Your task to perform on an android device: install app "Speedtest by Ookla" Image 0: 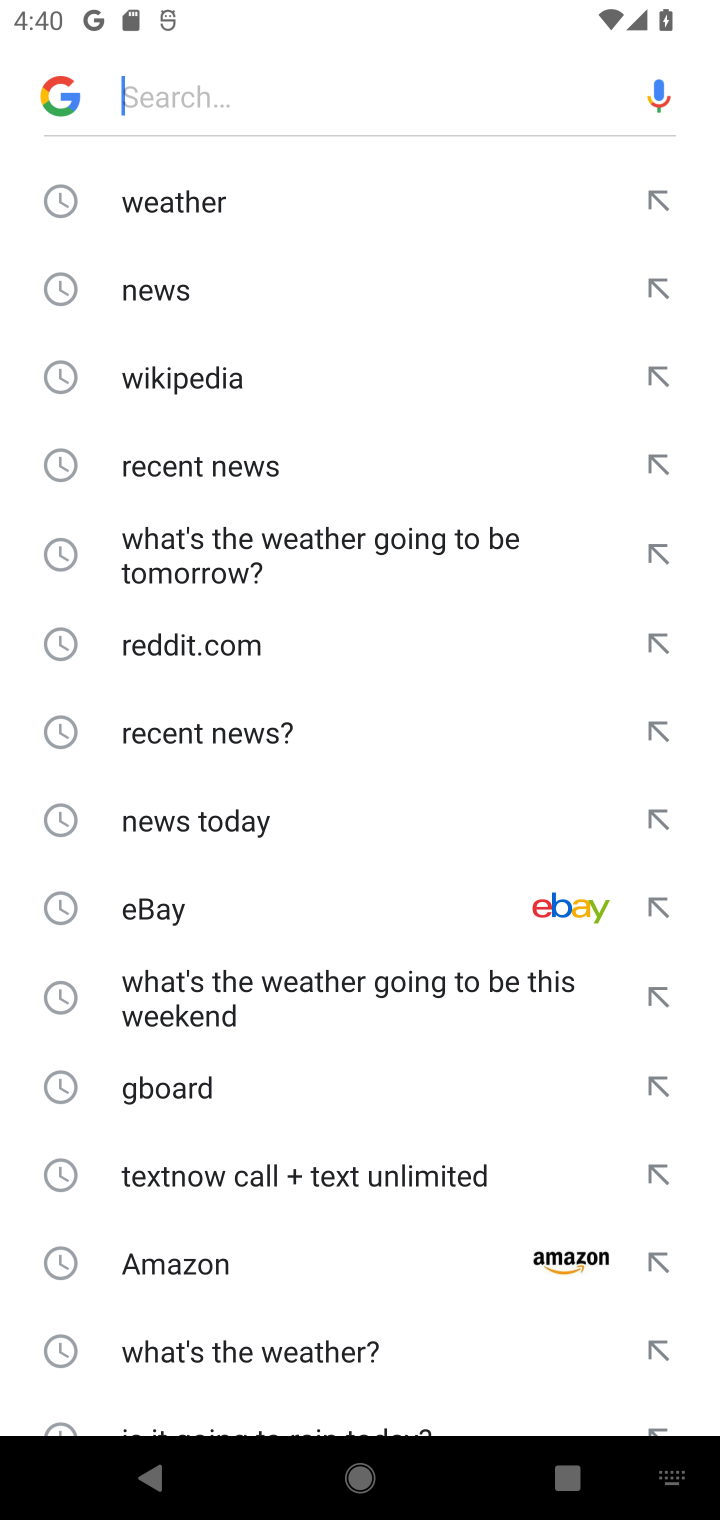
Step 0: press home button
Your task to perform on an android device: install app "Speedtest by Ookla" Image 1: 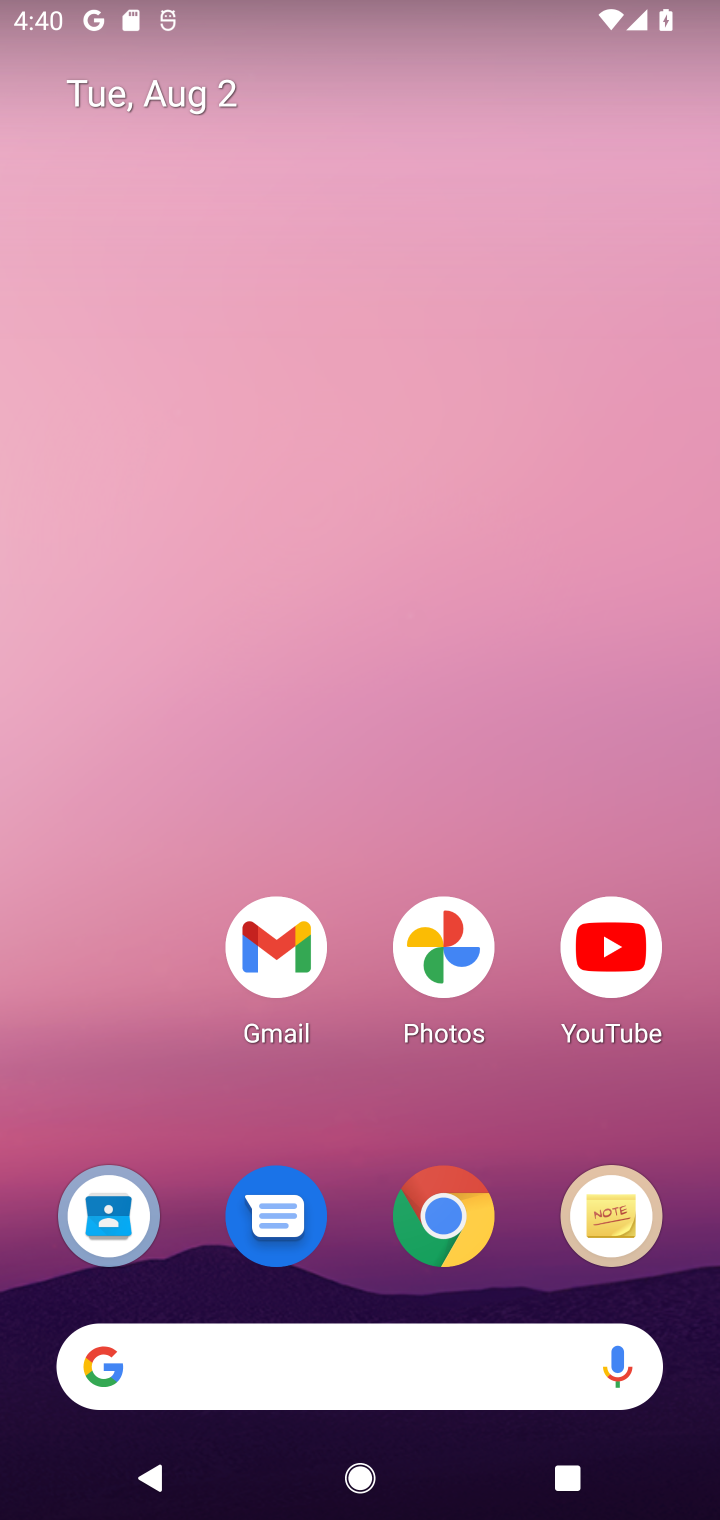
Step 1: drag from (189, 1277) to (122, 150)
Your task to perform on an android device: install app "Speedtest by Ookla" Image 2: 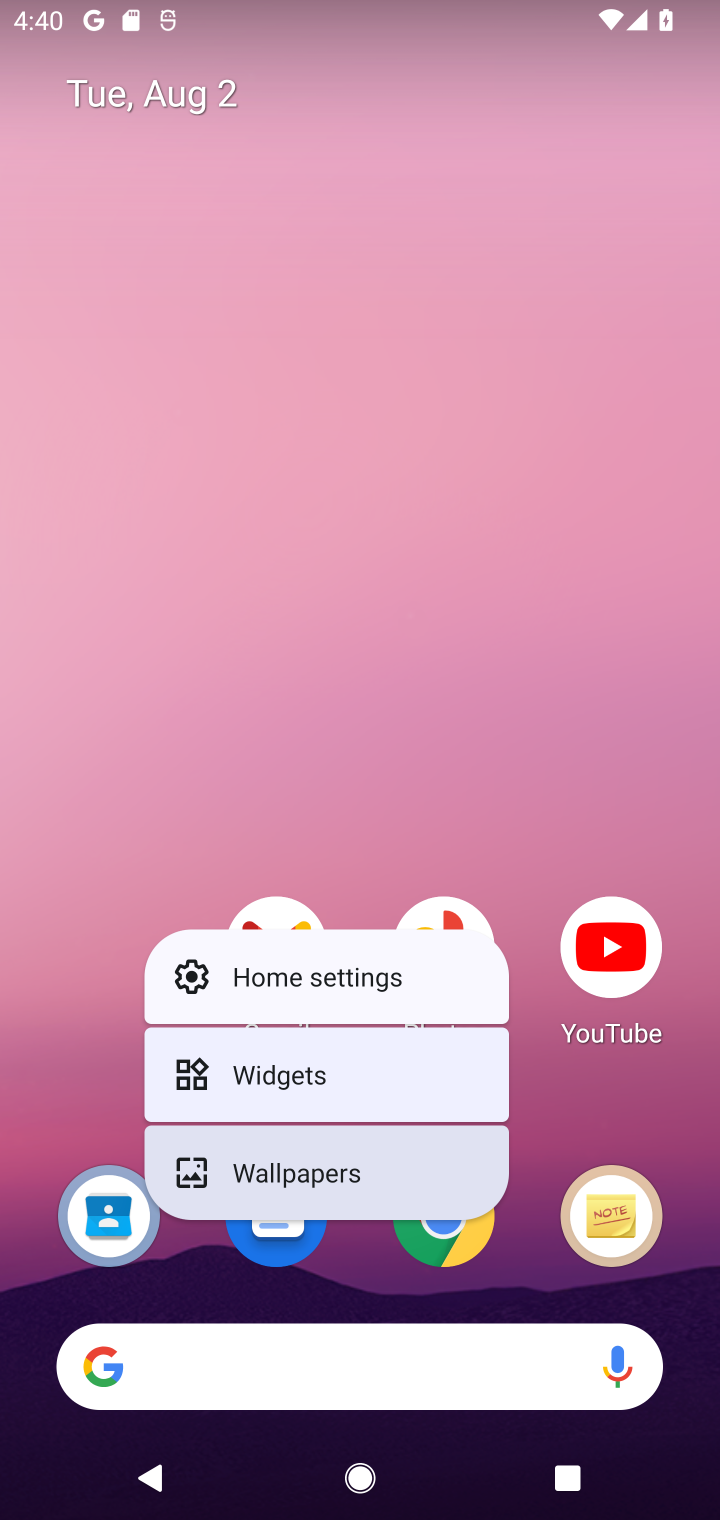
Step 2: click (122, 150)
Your task to perform on an android device: install app "Speedtest by Ookla" Image 3: 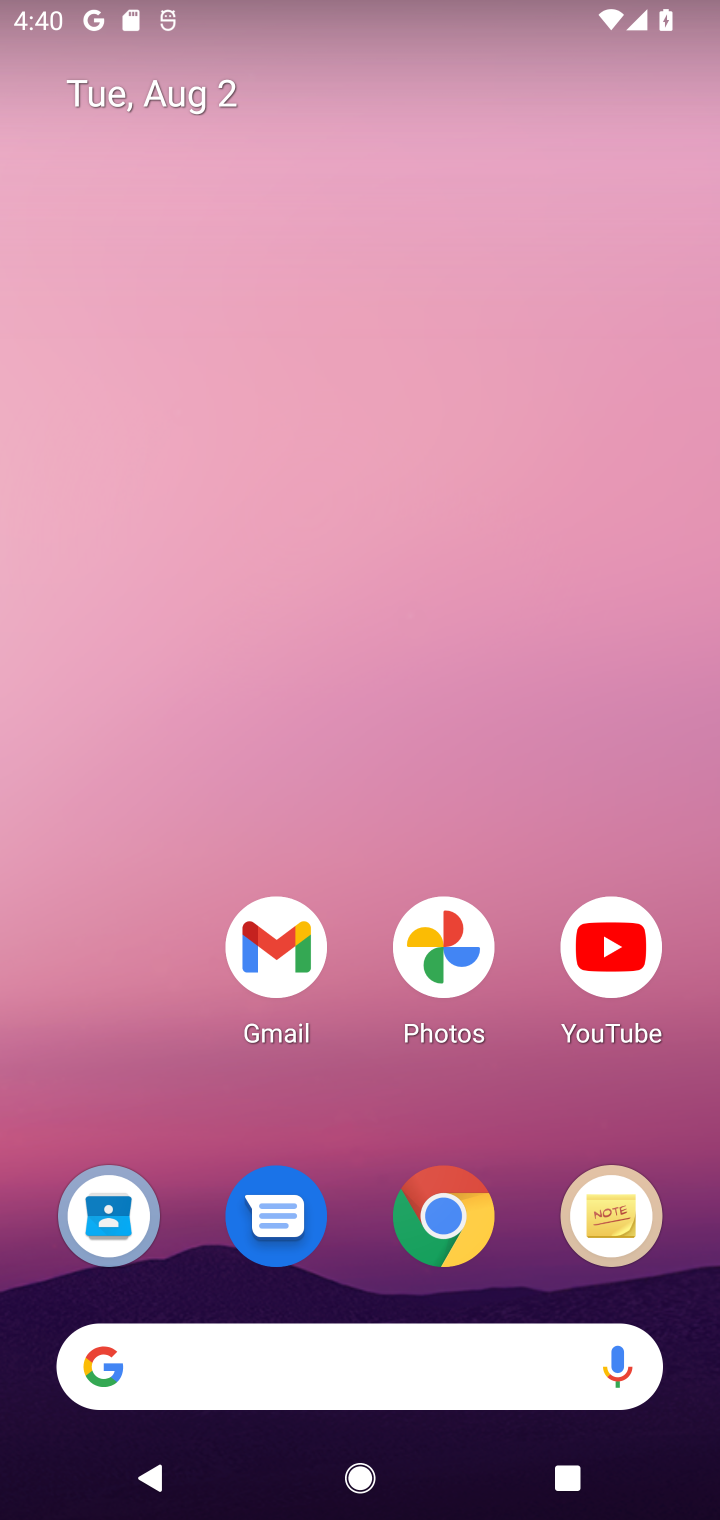
Step 3: drag from (186, 1280) to (324, 240)
Your task to perform on an android device: install app "Speedtest by Ookla" Image 4: 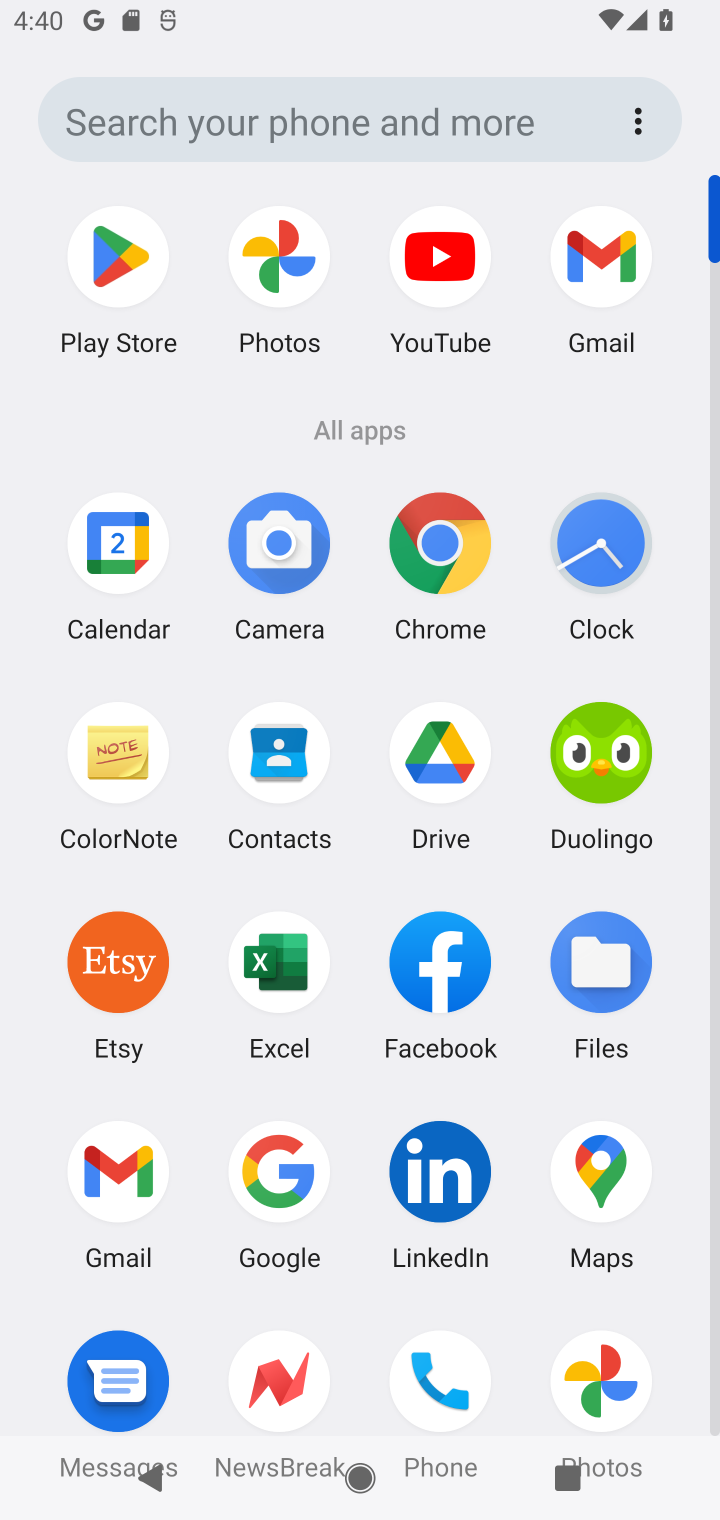
Step 4: click (152, 311)
Your task to perform on an android device: install app "Speedtest by Ookla" Image 5: 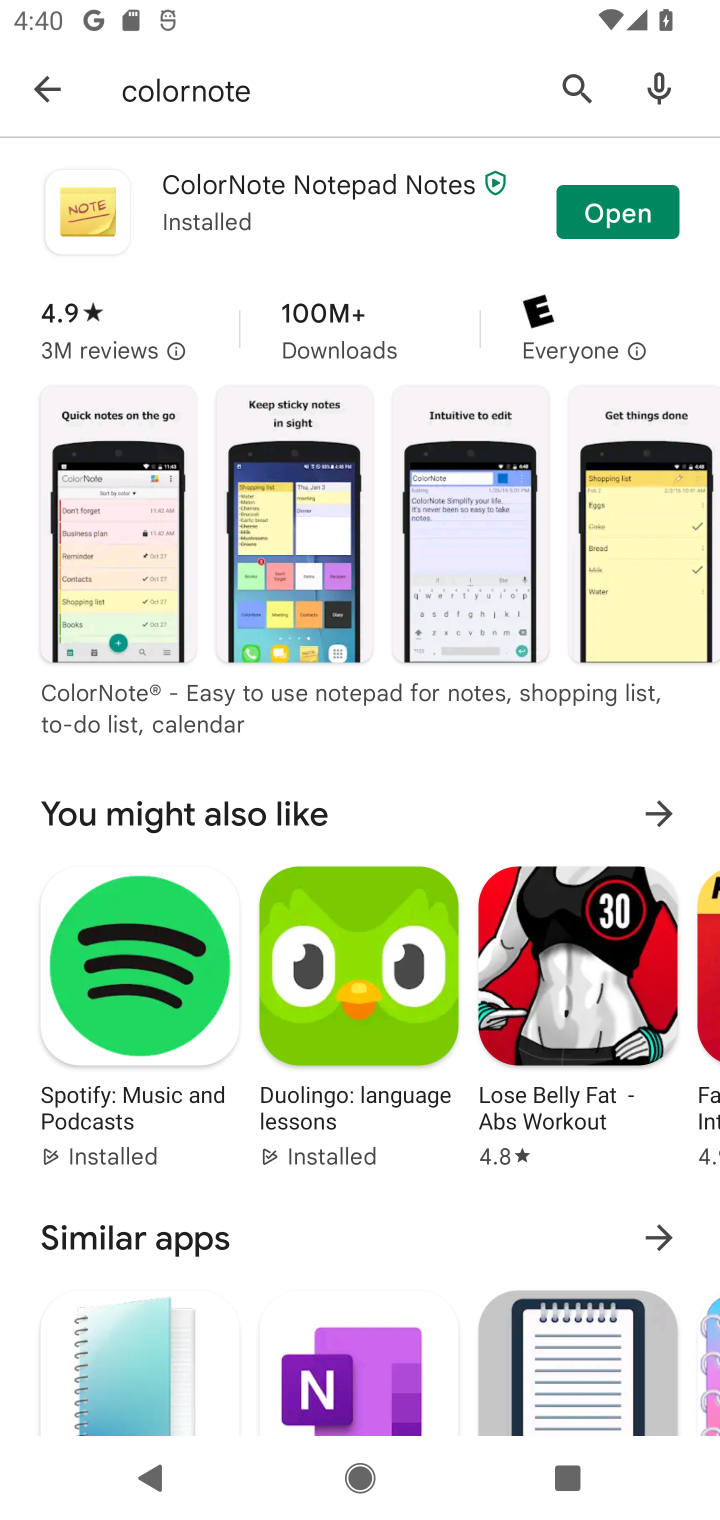
Step 5: click (579, 84)
Your task to perform on an android device: install app "Speedtest by Ookla" Image 6: 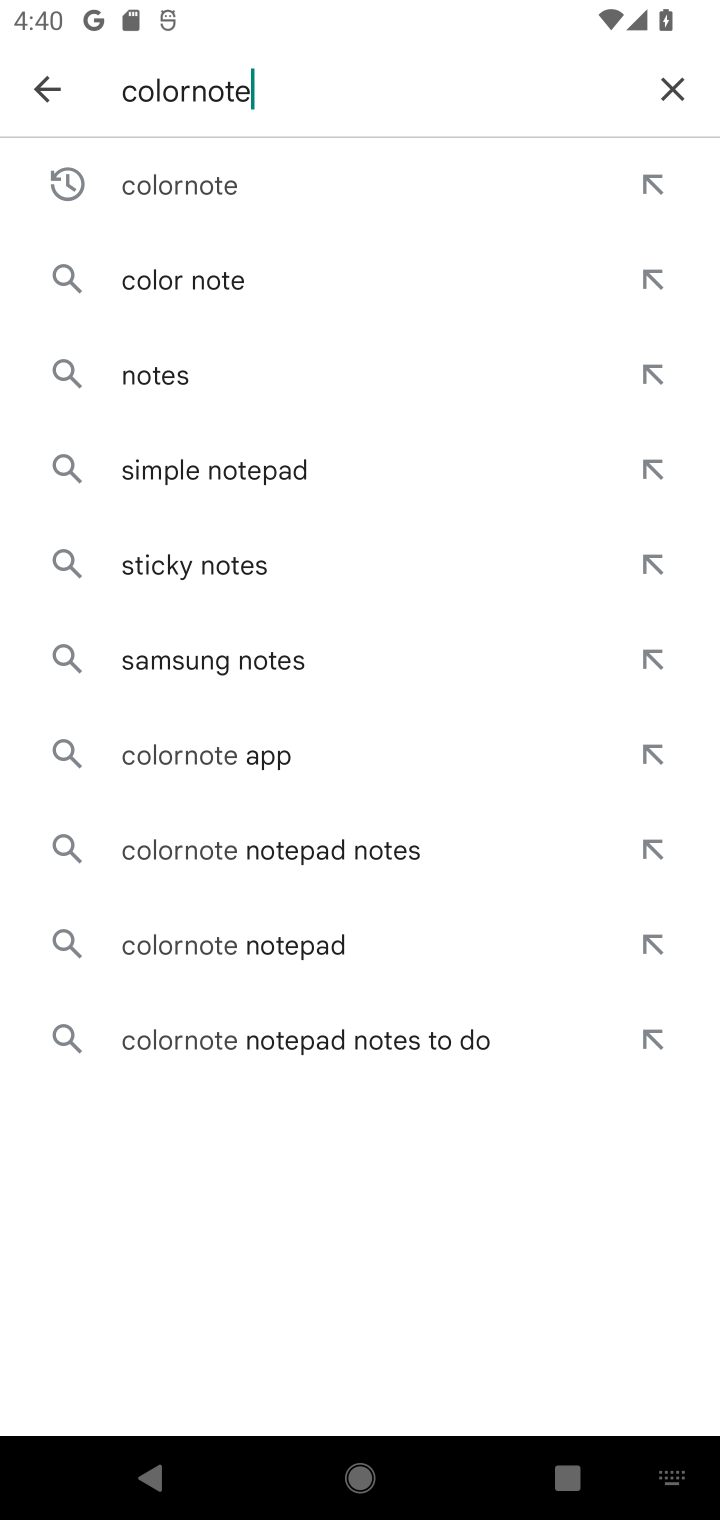
Step 6: click (644, 86)
Your task to perform on an android device: install app "Speedtest by Ookla" Image 7: 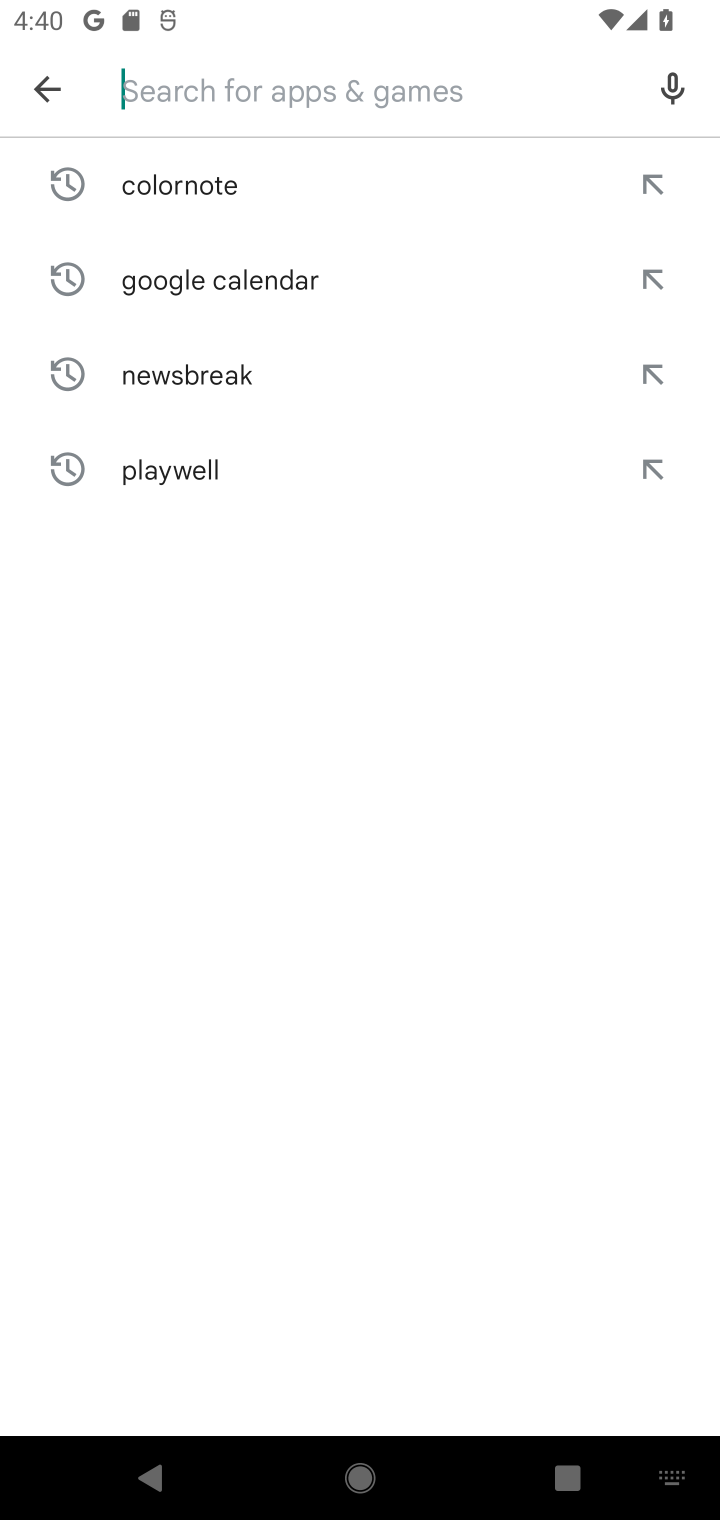
Step 7: type "speedtest"
Your task to perform on an android device: install app "Speedtest by Ookla" Image 8: 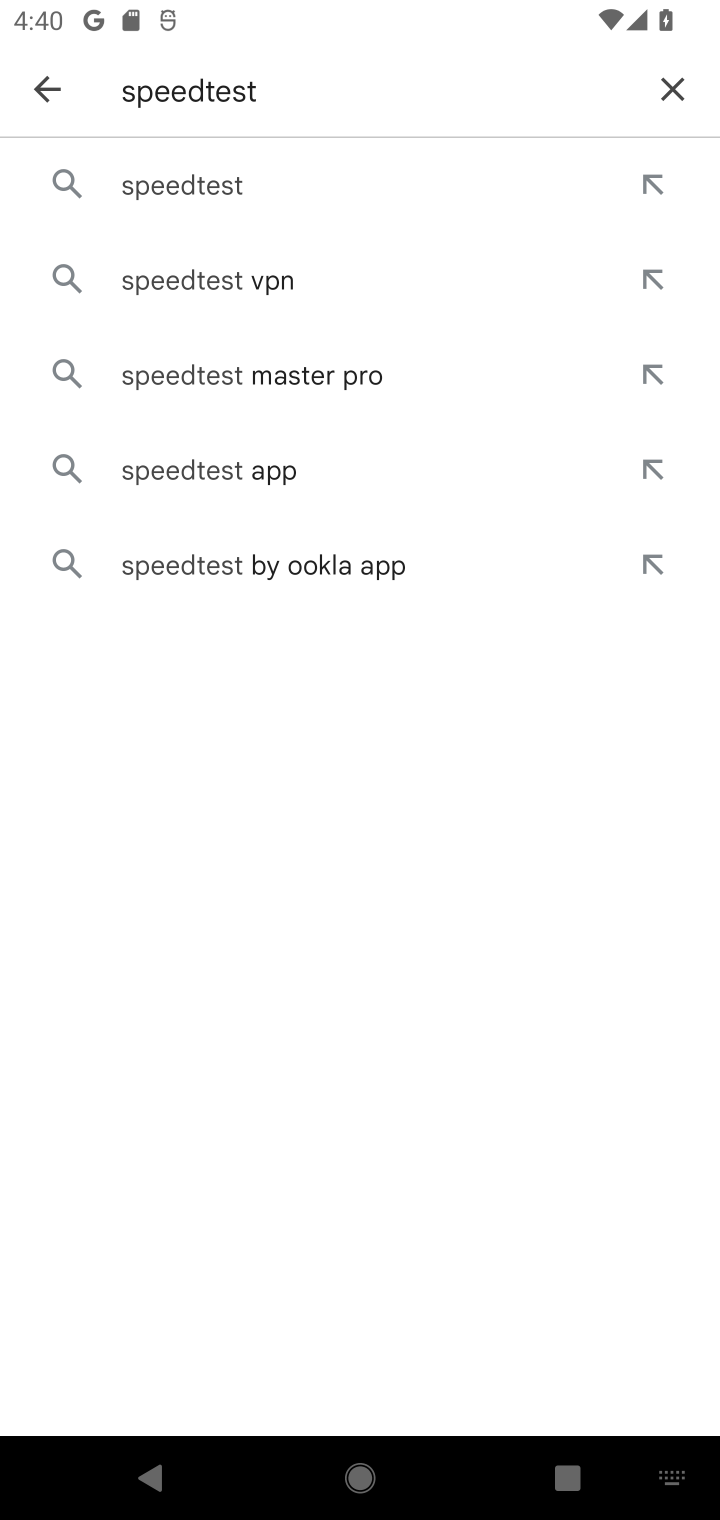
Step 8: click (485, 207)
Your task to perform on an android device: install app "Speedtest by Ookla" Image 9: 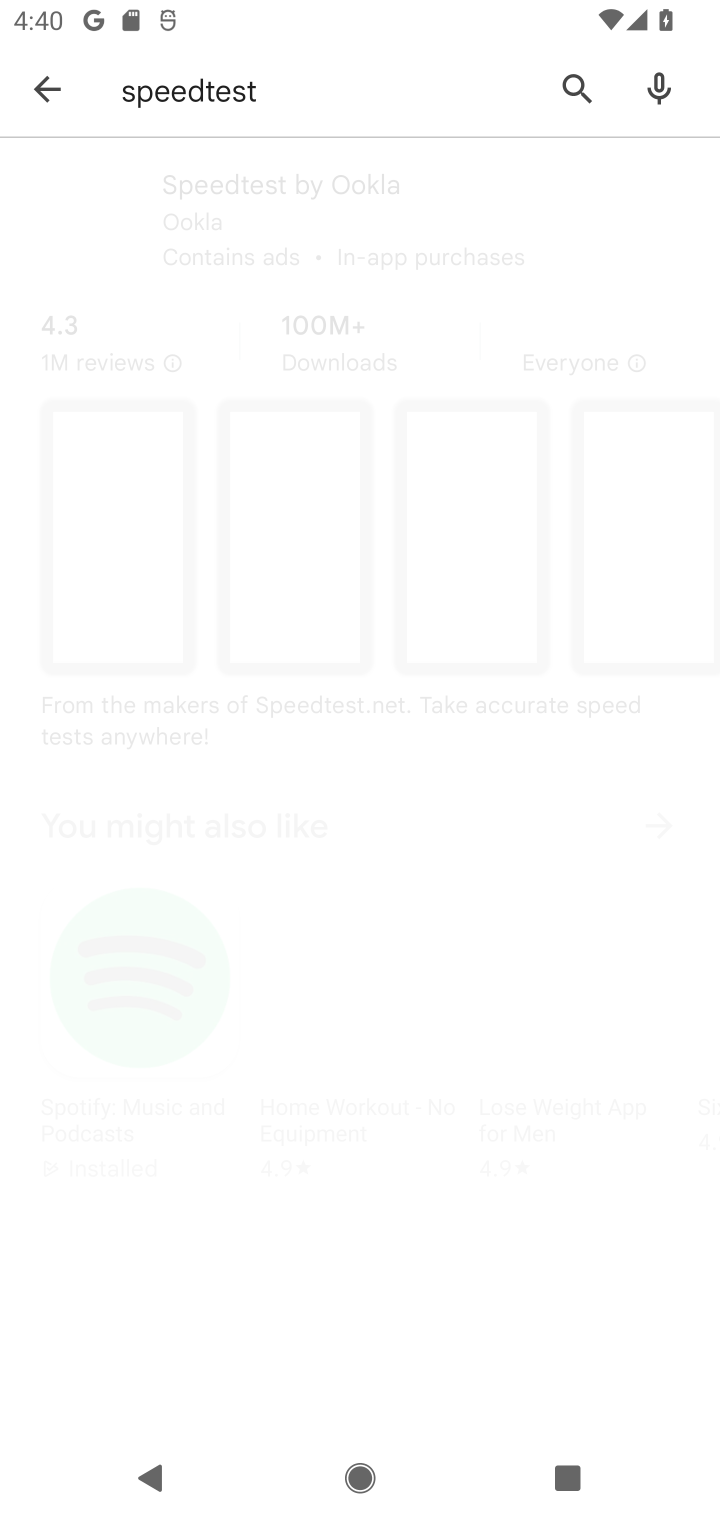
Step 9: click (320, 185)
Your task to perform on an android device: install app "Speedtest by Ookla" Image 10: 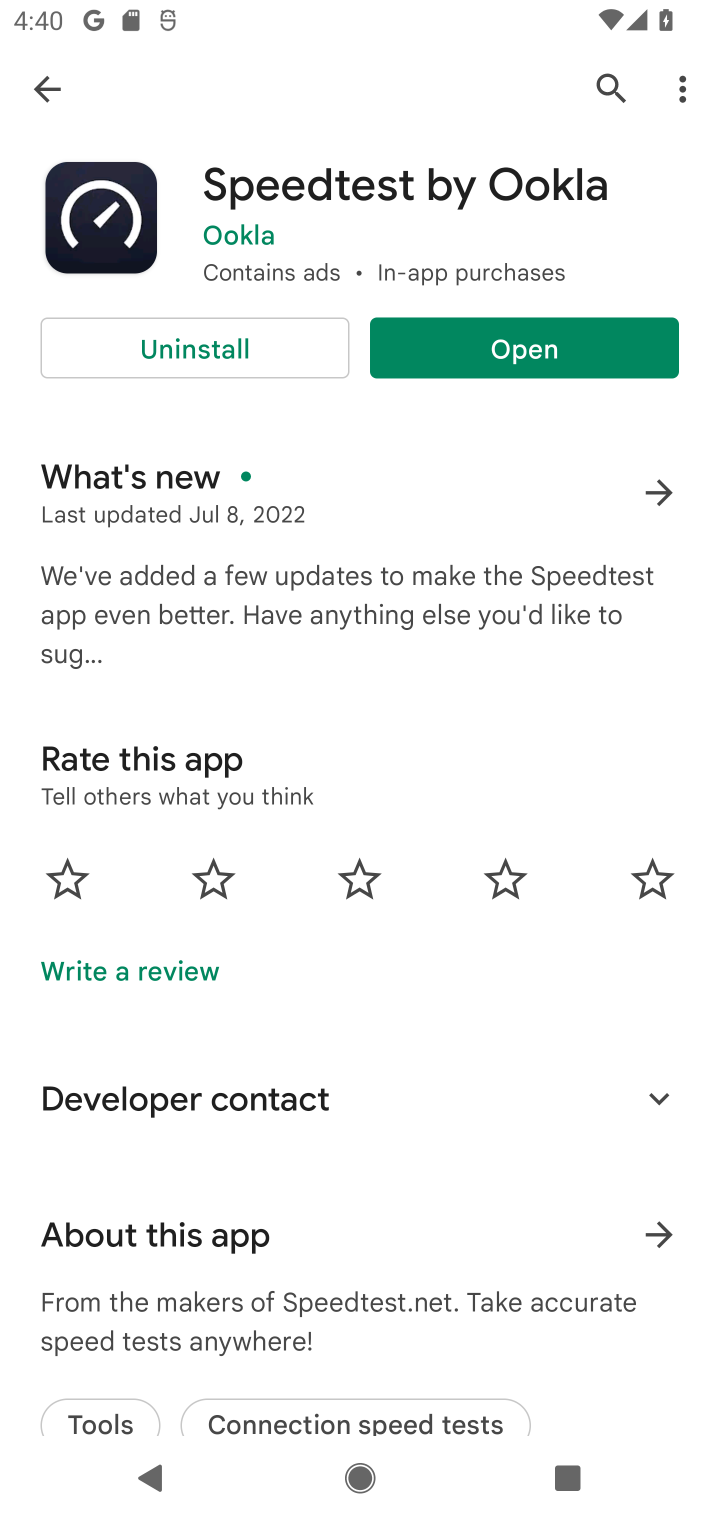
Step 10: click (592, 228)
Your task to perform on an android device: install app "Speedtest by Ookla" Image 11: 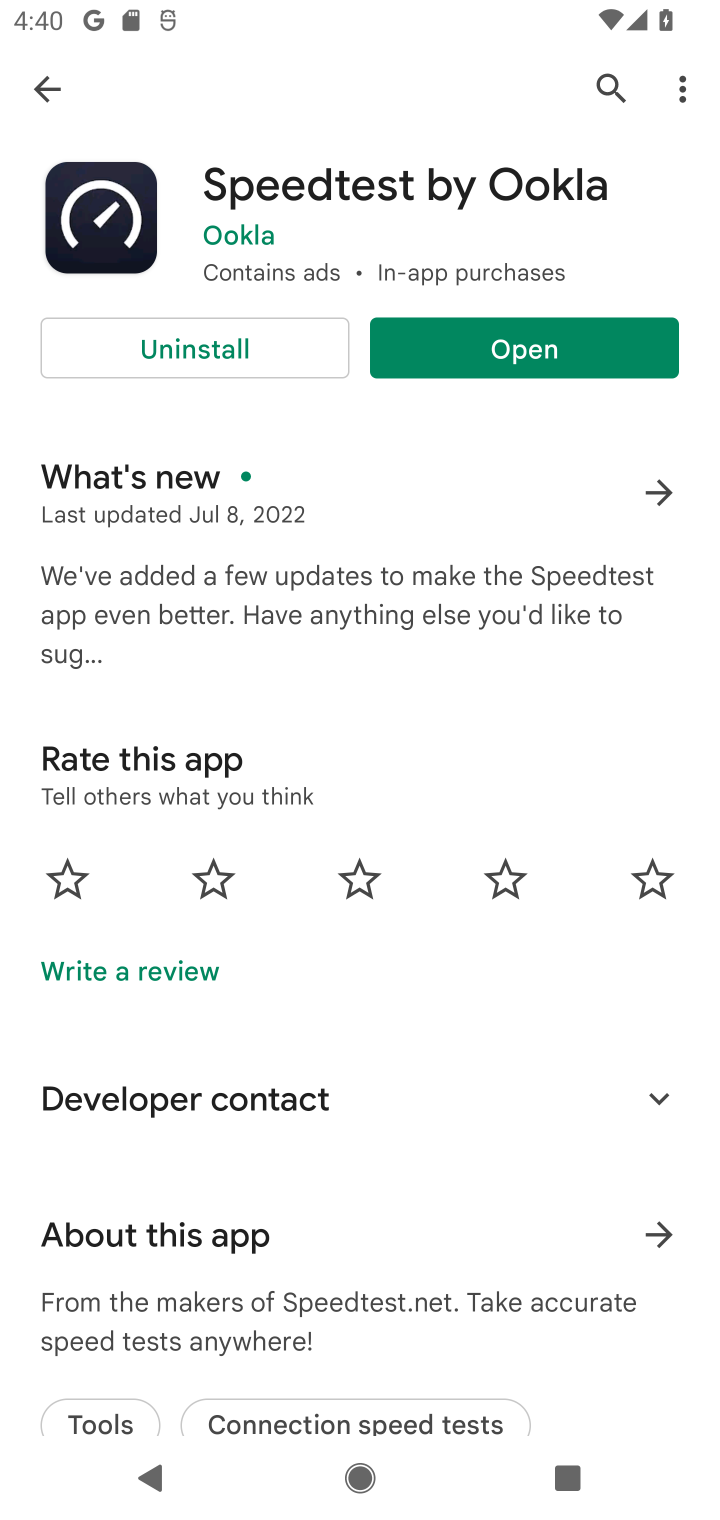
Step 11: task complete